Your task to perform on an android device: turn on sleep mode Image 0: 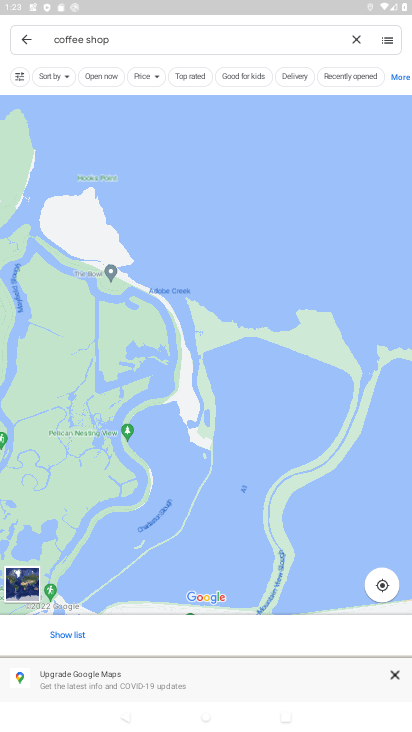
Step 0: drag from (193, 621) to (228, 142)
Your task to perform on an android device: turn on sleep mode Image 1: 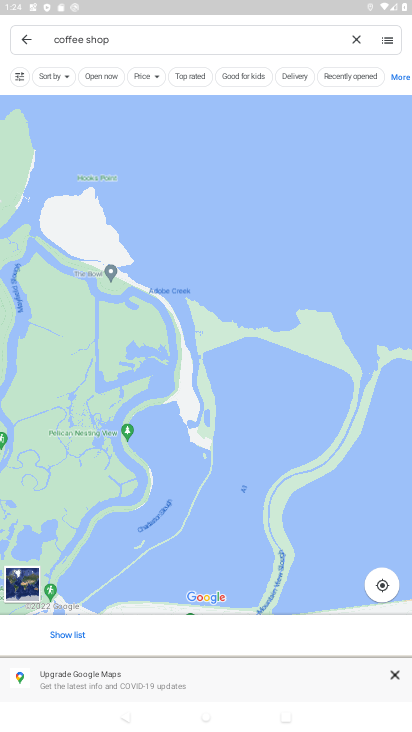
Step 1: drag from (197, 647) to (267, 330)
Your task to perform on an android device: turn on sleep mode Image 2: 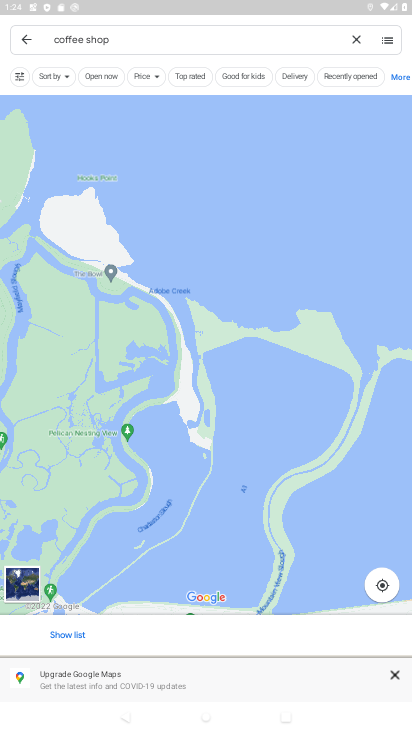
Step 2: drag from (185, 642) to (259, 243)
Your task to perform on an android device: turn on sleep mode Image 3: 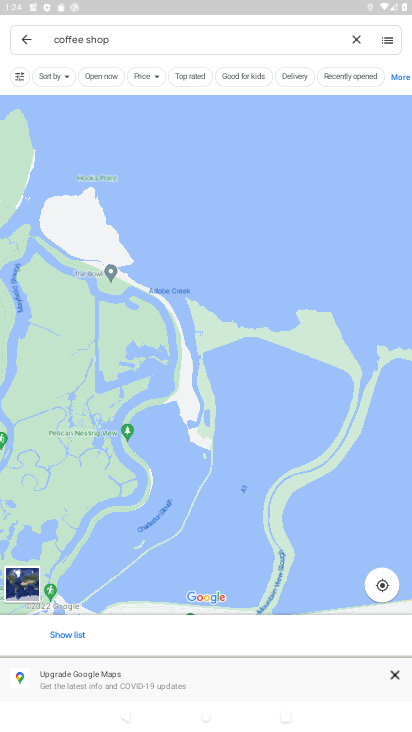
Step 3: drag from (188, 614) to (215, 333)
Your task to perform on an android device: turn on sleep mode Image 4: 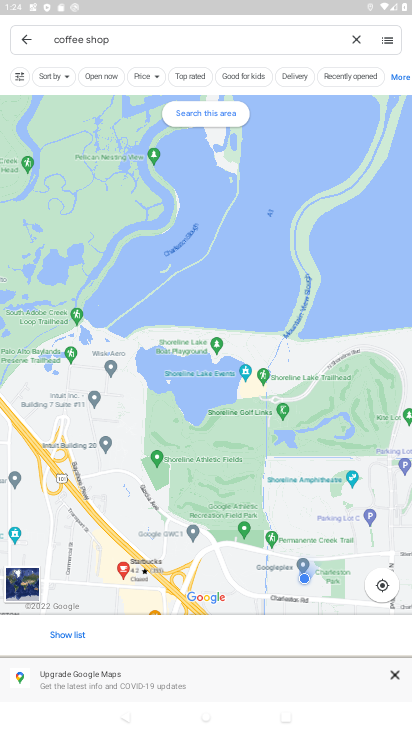
Step 4: drag from (219, 639) to (243, 317)
Your task to perform on an android device: turn on sleep mode Image 5: 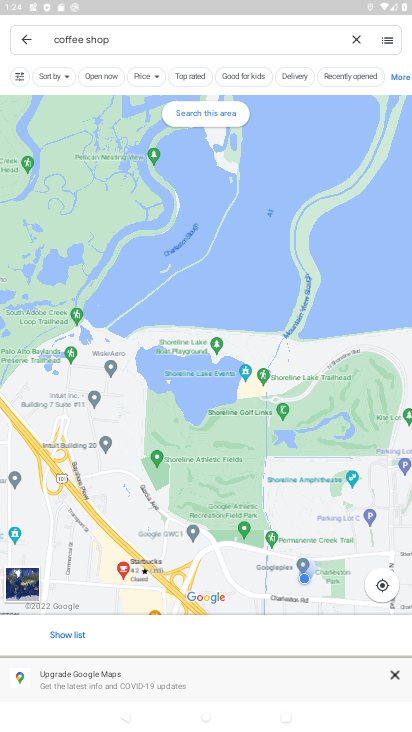
Step 5: drag from (252, 511) to (254, 282)
Your task to perform on an android device: turn on sleep mode Image 6: 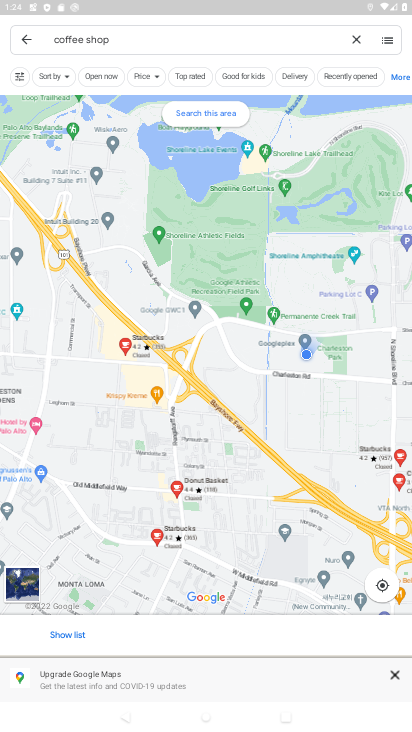
Step 6: press home button
Your task to perform on an android device: turn on sleep mode Image 7: 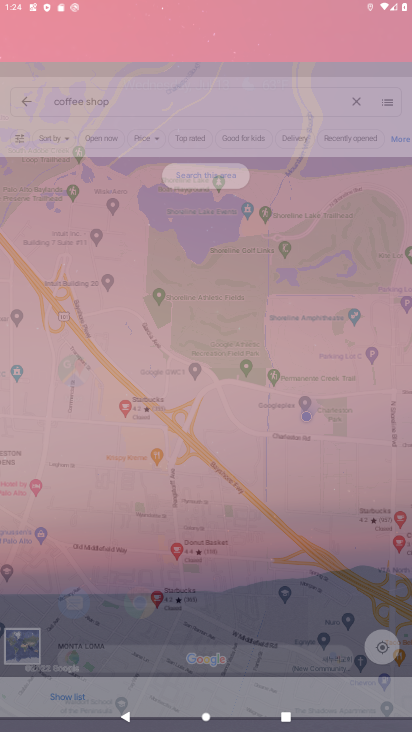
Step 7: drag from (176, 490) to (200, 166)
Your task to perform on an android device: turn on sleep mode Image 8: 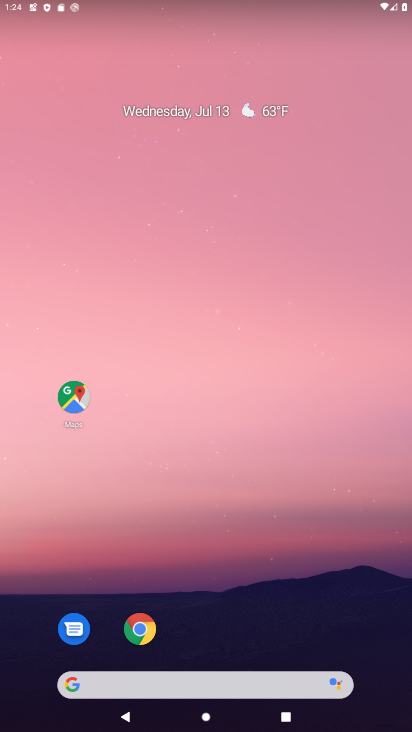
Step 8: drag from (179, 575) to (271, 18)
Your task to perform on an android device: turn on sleep mode Image 9: 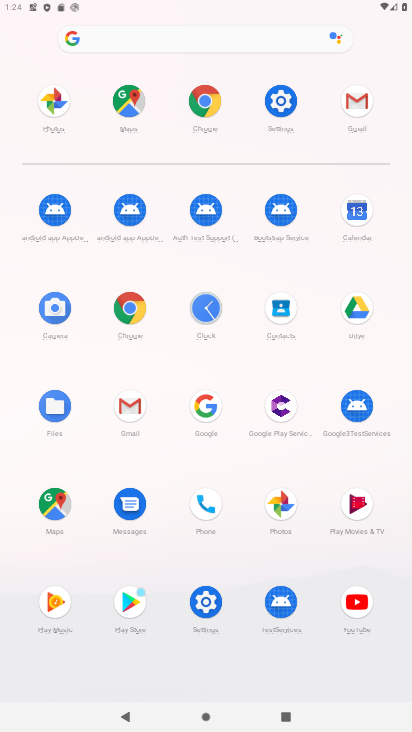
Step 9: click (267, 100)
Your task to perform on an android device: turn on sleep mode Image 10: 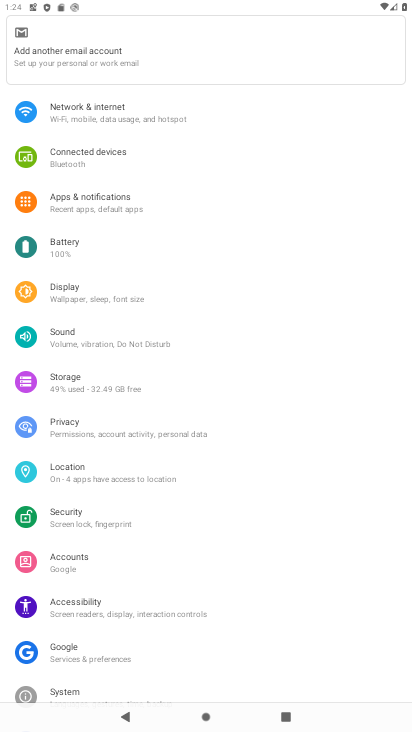
Step 10: drag from (154, 510) to (226, 141)
Your task to perform on an android device: turn on sleep mode Image 11: 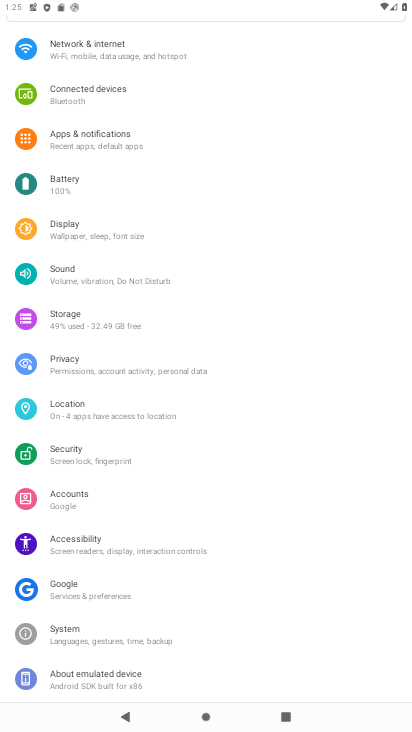
Step 11: click (83, 224)
Your task to perform on an android device: turn on sleep mode Image 12: 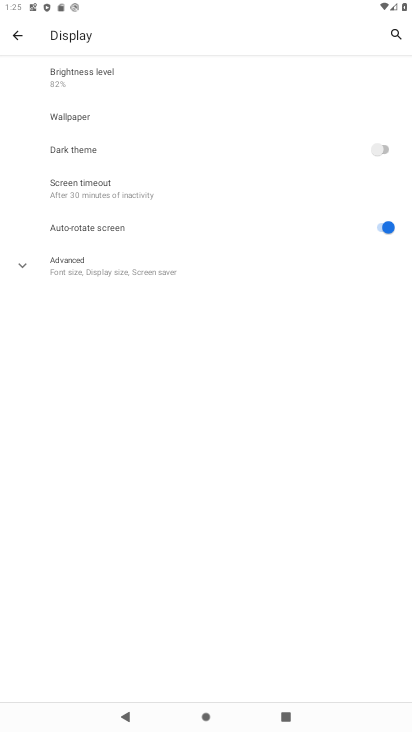
Step 12: click (120, 187)
Your task to perform on an android device: turn on sleep mode Image 13: 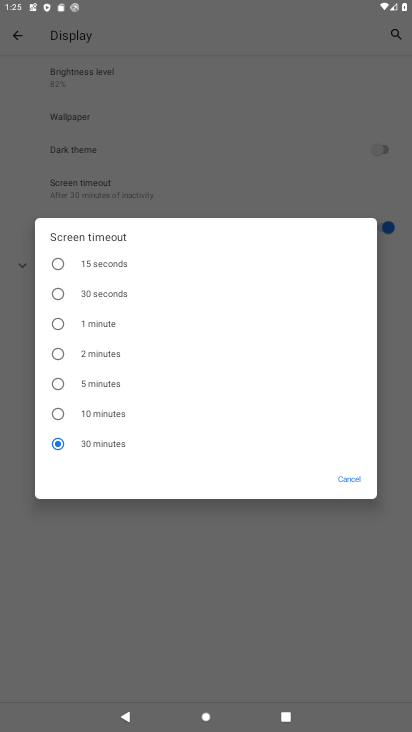
Step 13: task complete